Your task to perform on an android device: open a bookmark in the chrome app Image 0: 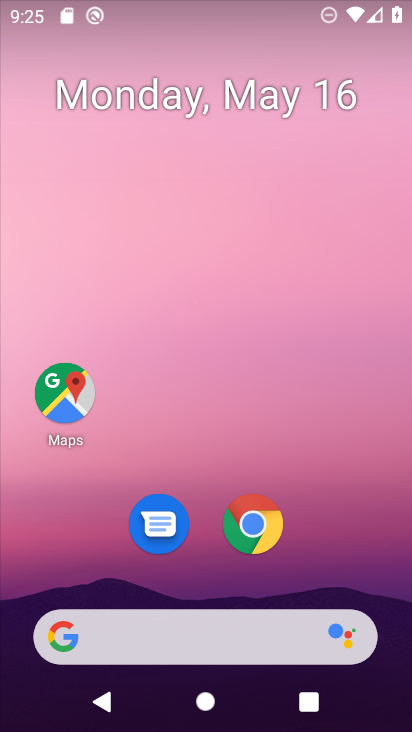
Step 0: click (267, 527)
Your task to perform on an android device: open a bookmark in the chrome app Image 1: 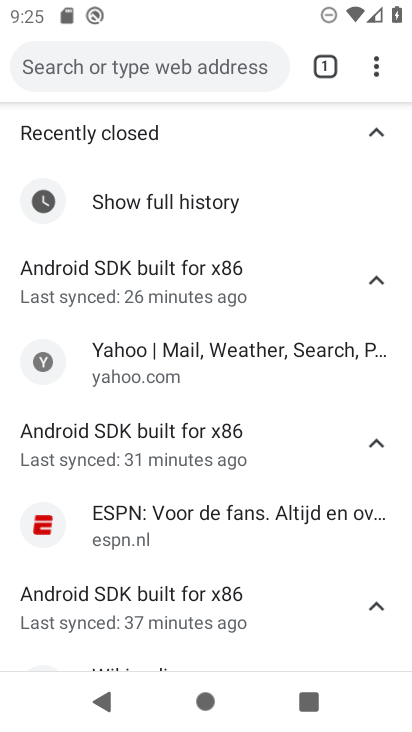
Step 1: click (378, 66)
Your task to perform on an android device: open a bookmark in the chrome app Image 2: 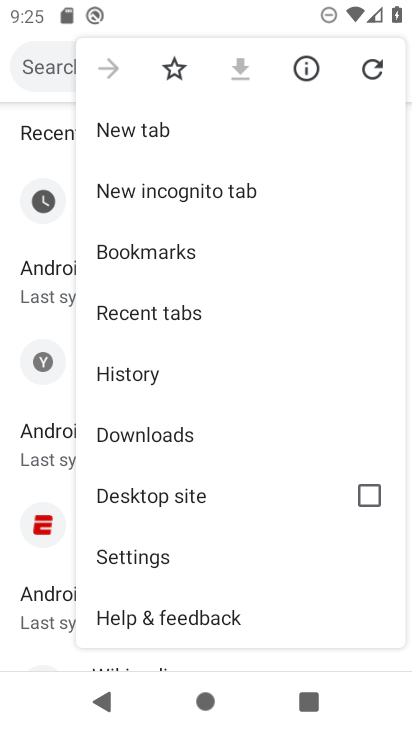
Step 2: click (184, 256)
Your task to perform on an android device: open a bookmark in the chrome app Image 3: 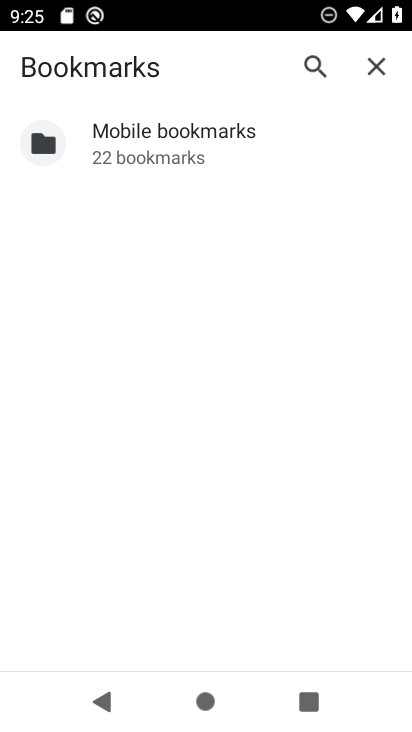
Step 3: click (151, 135)
Your task to perform on an android device: open a bookmark in the chrome app Image 4: 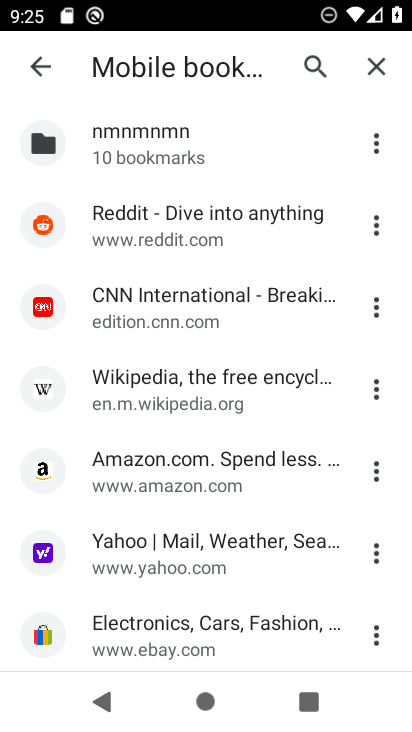
Step 4: click (214, 378)
Your task to perform on an android device: open a bookmark in the chrome app Image 5: 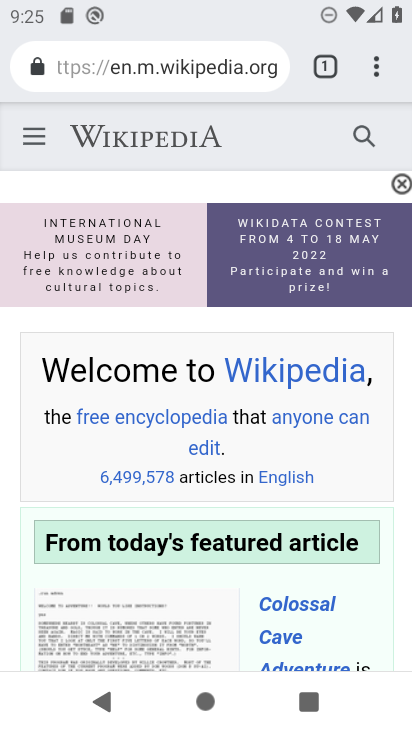
Step 5: task complete